Your task to perform on an android device: Go to Maps Image 0: 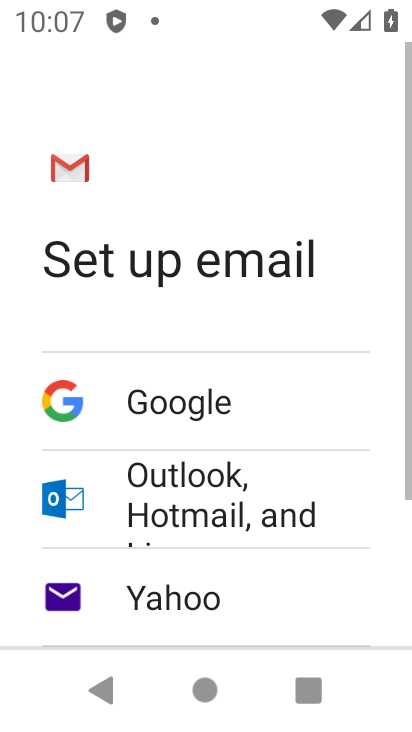
Step 0: press home button
Your task to perform on an android device: Go to Maps Image 1: 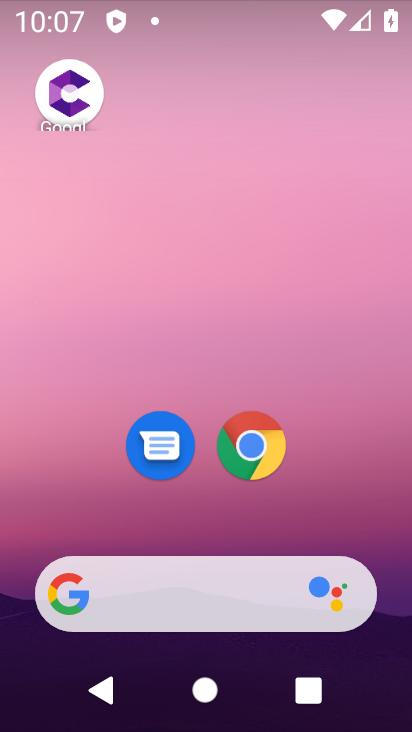
Step 1: drag from (275, 623) to (230, 227)
Your task to perform on an android device: Go to Maps Image 2: 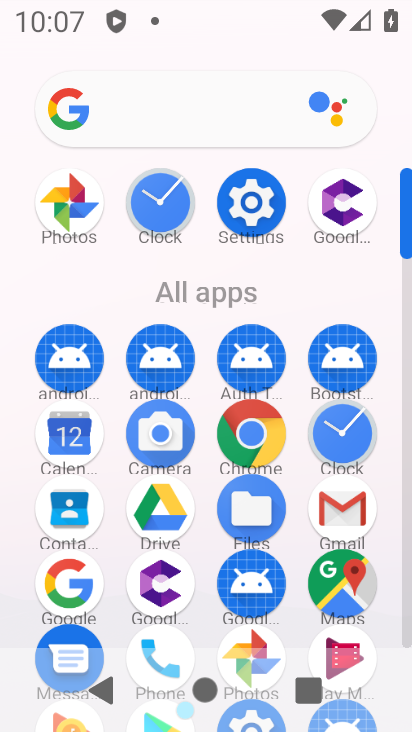
Step 2: click (317, 580)
Your task to perform on an android device: Go to Maps Image 3: 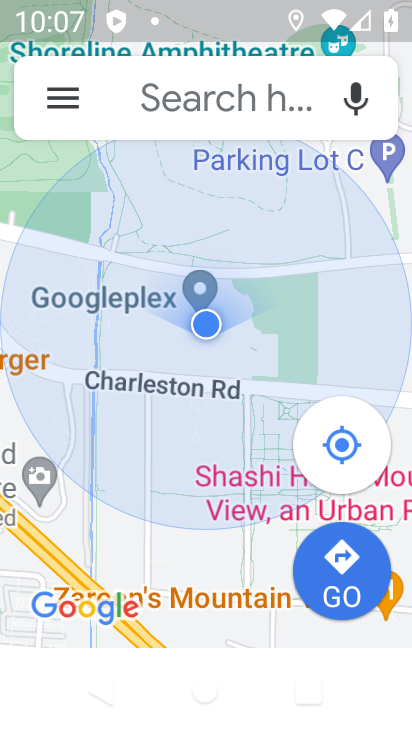
Step 3: click (172, 418)
Your task to perform on an android device: Go to Maps Image 4: 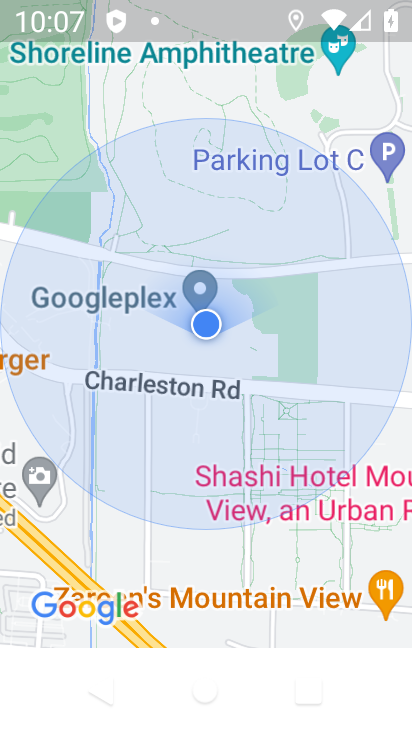
Step 4: task complete